Your task to perform on an android device: turn pop-ups on in chrome Image 0: 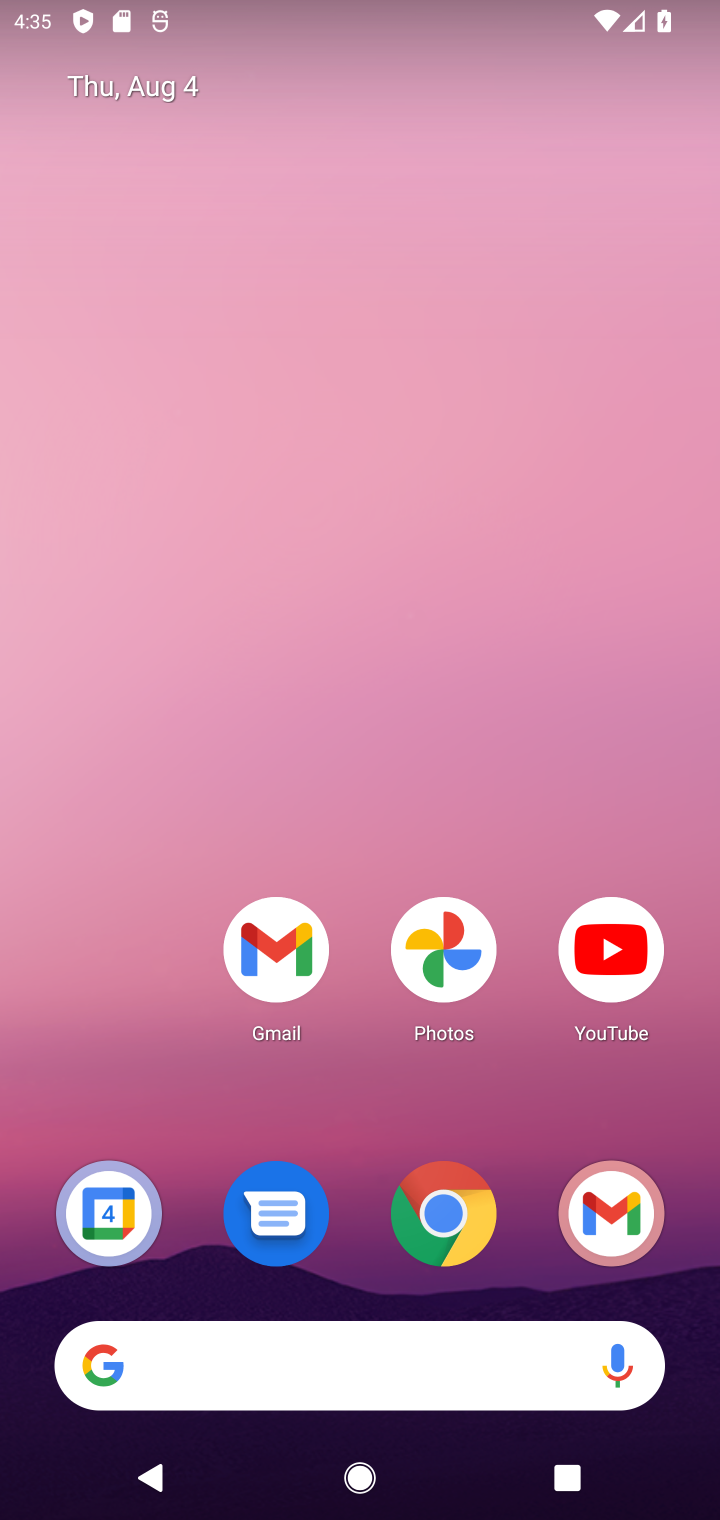
Step 0: press home button
Your task to perform on an android device: turn pop-ups on in chrome Image 1: 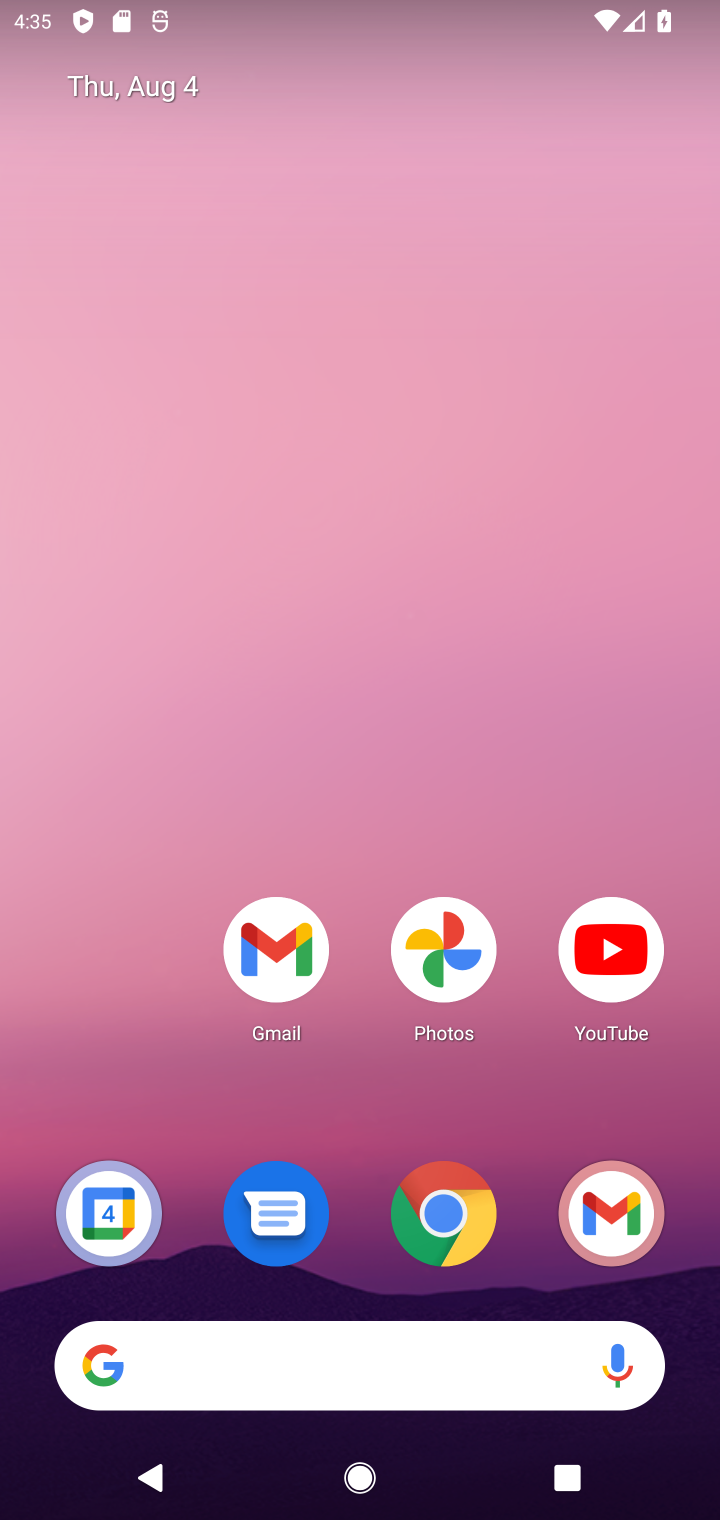
Step 1: drag from (118, 1067) to (147, 311)
Your task to perform on an android device: turn pop-ups on in chrome Image 2: 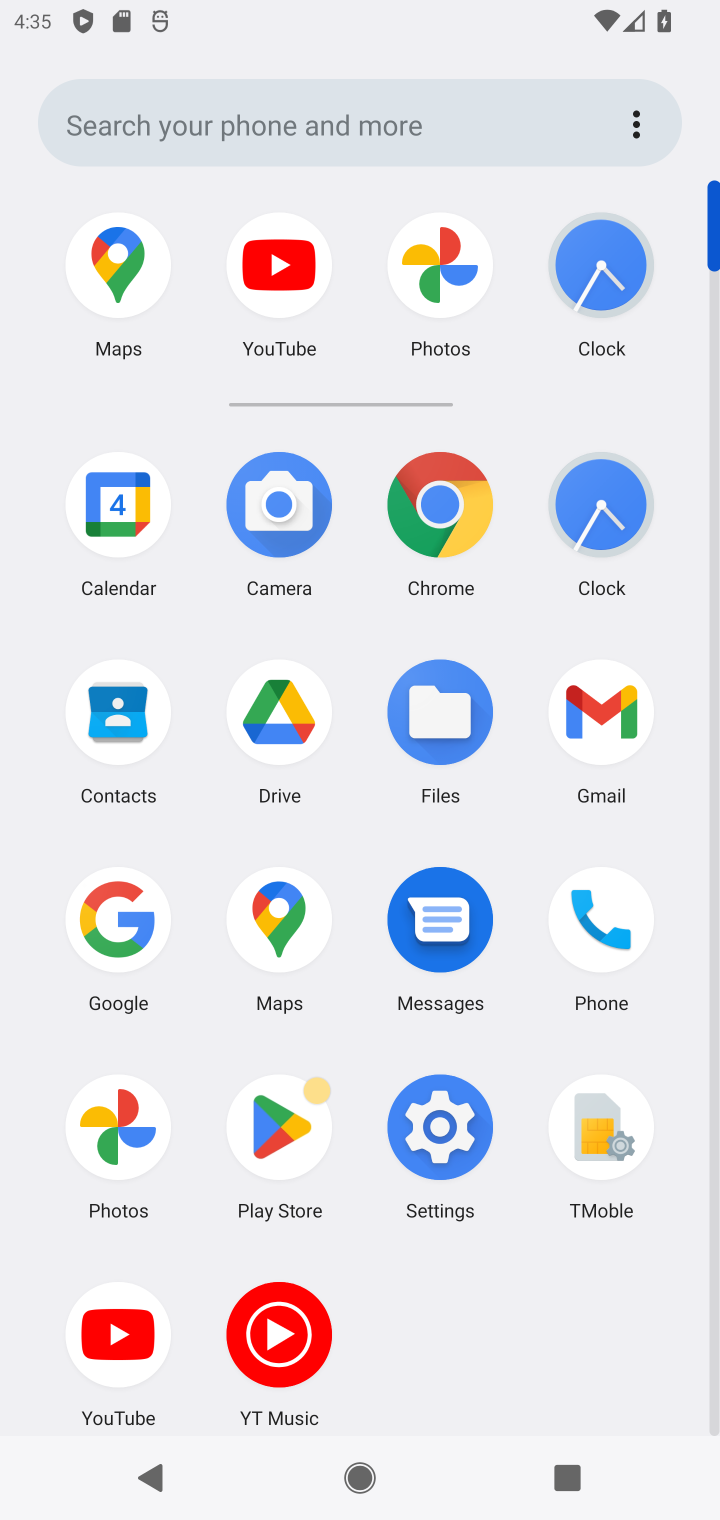
Step 2: click (463, 523)
Your task to perform on an android device: turn pop-ups on in chrome Image 3: 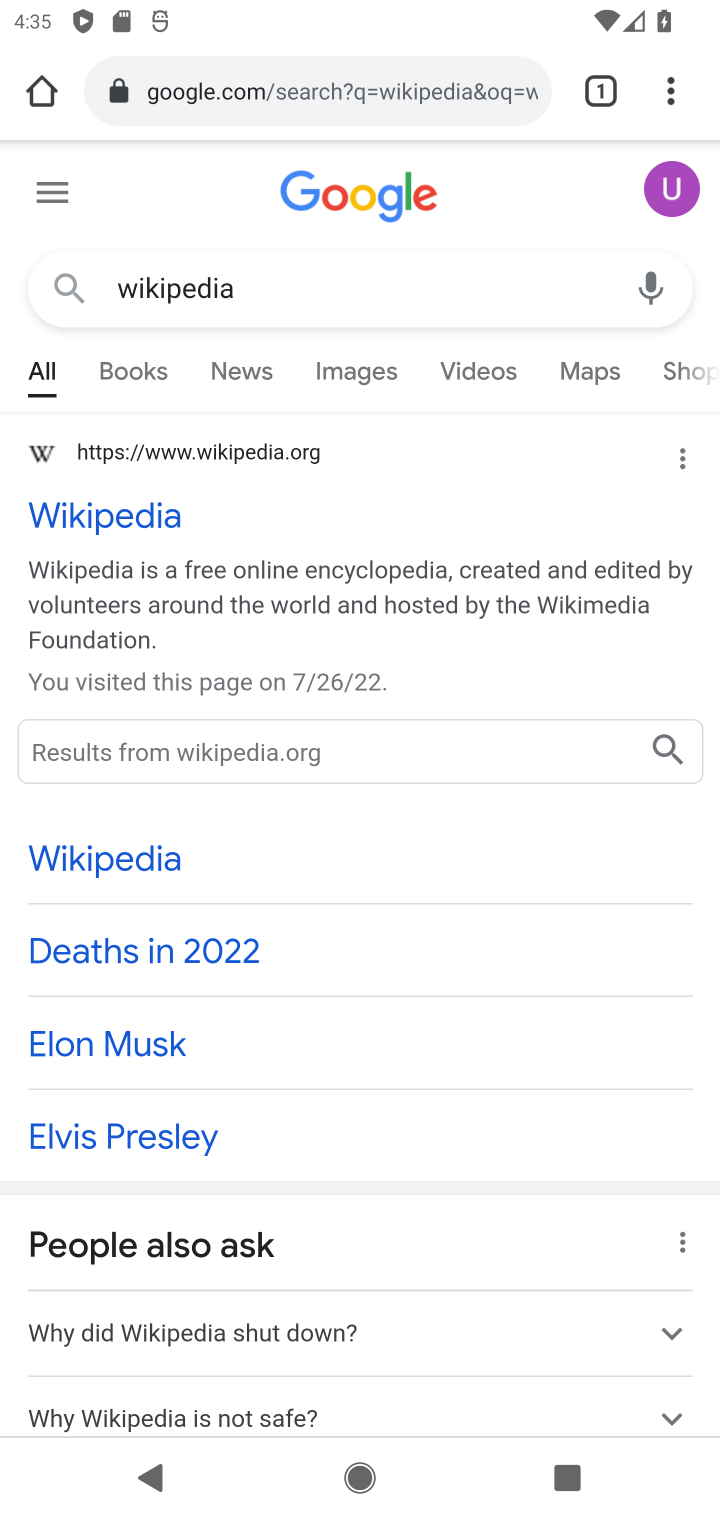
Step 3: click (671, 104)
Your task to perform on an android device: turn pop-ups on in chrome Image 4: 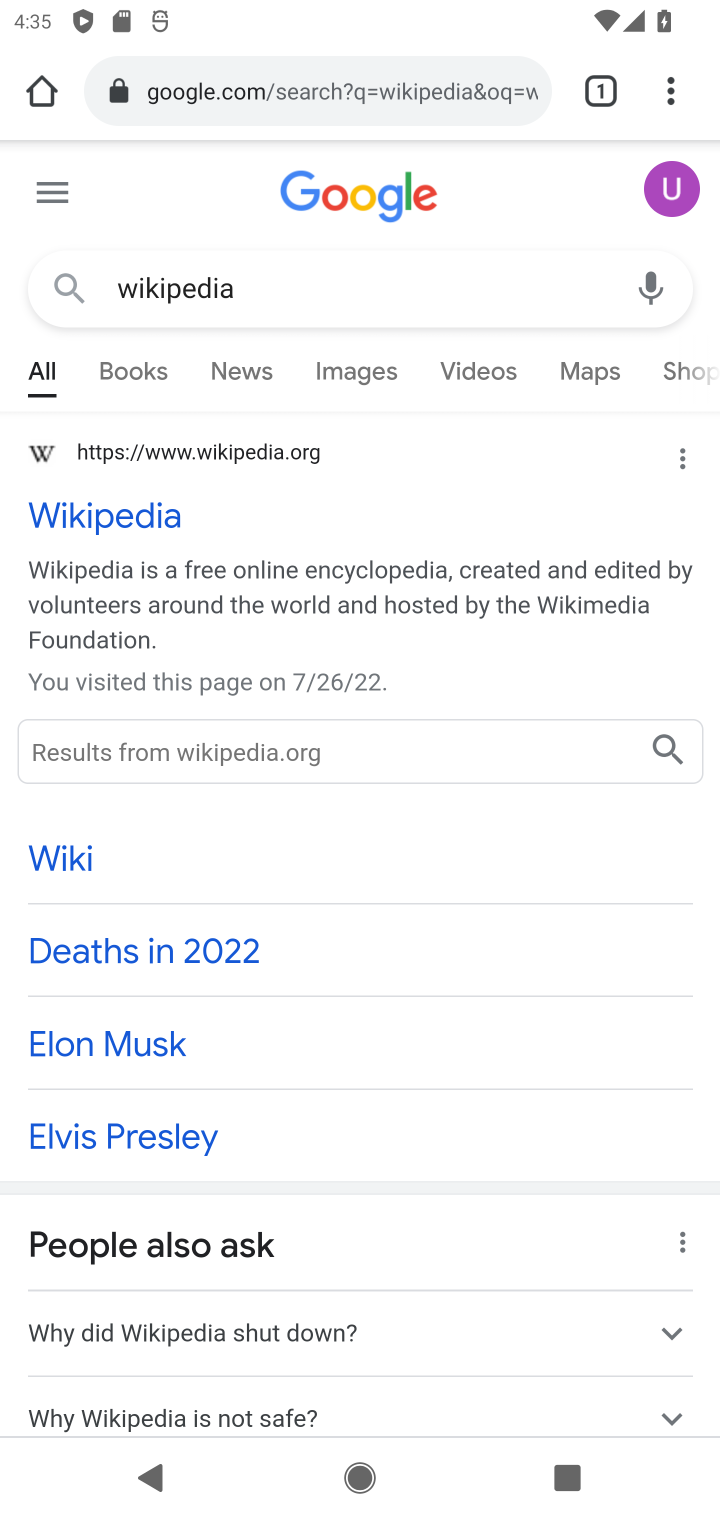
Step 4: click (664, 77)
Your task to perform on an android device: turn pop-ups on in chrome Image 5: 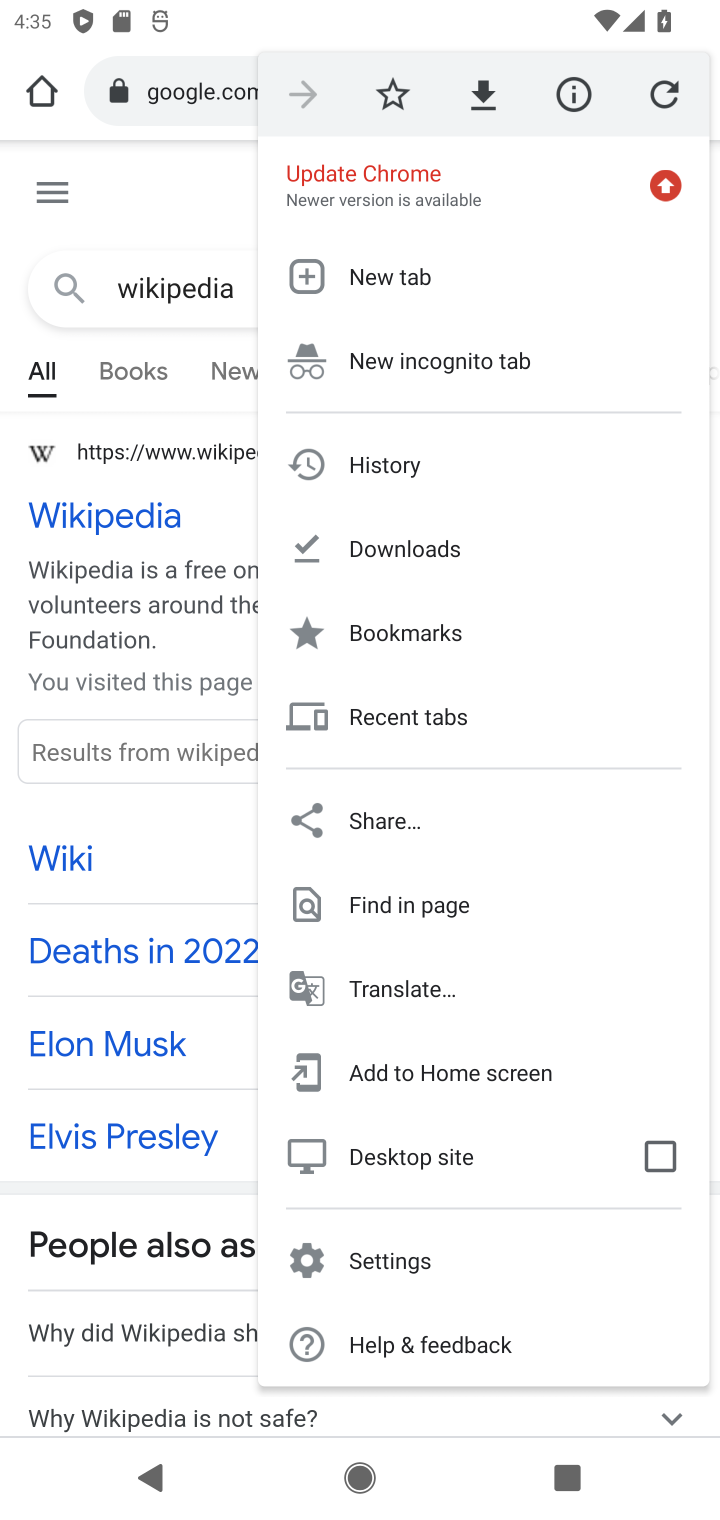
Step 5: click (423, 1263)
Your task to perform on an android device: turn pop-ups on in chrome Image 6: 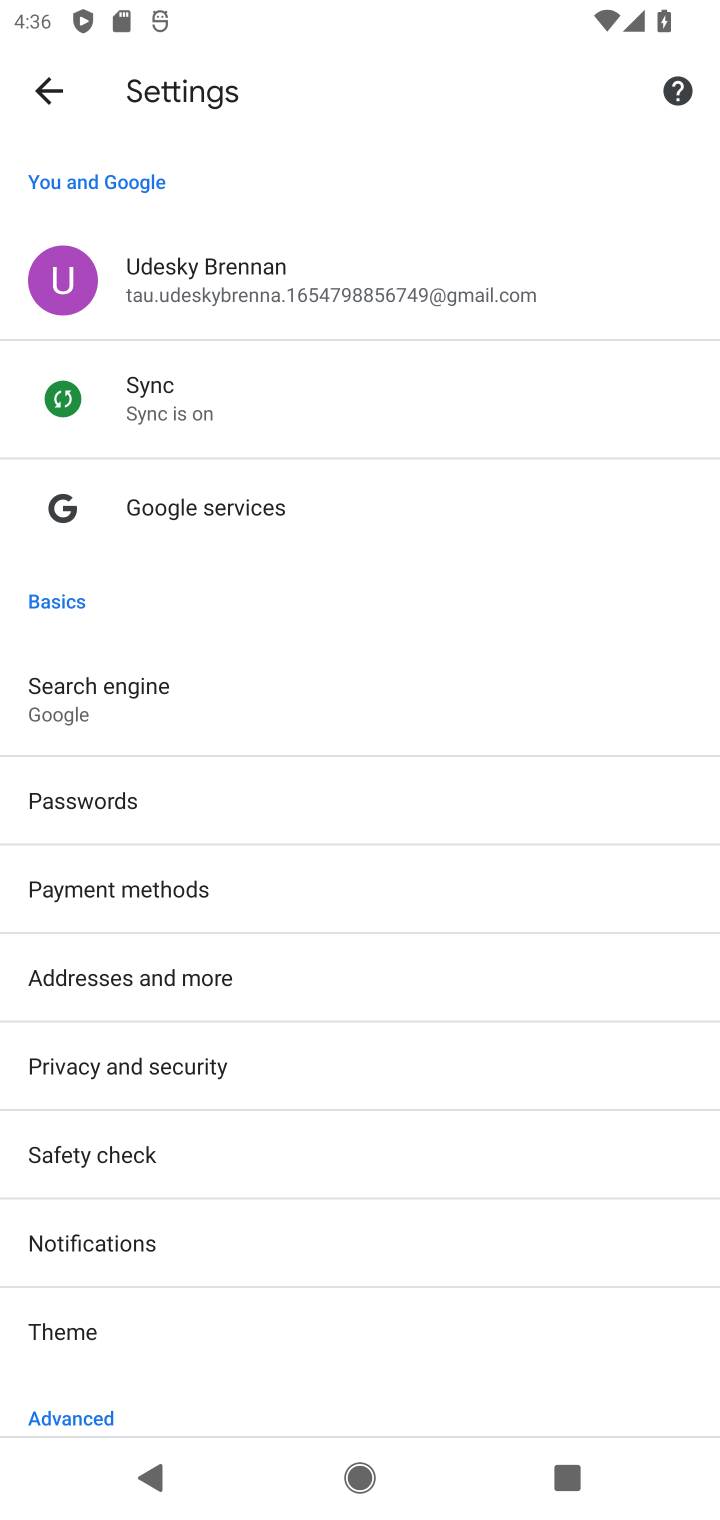
Step 6: drag from (451, 1203) to (455, 898)
Your task to perform on an android device: turn pop-ups on in chrome Image 7: 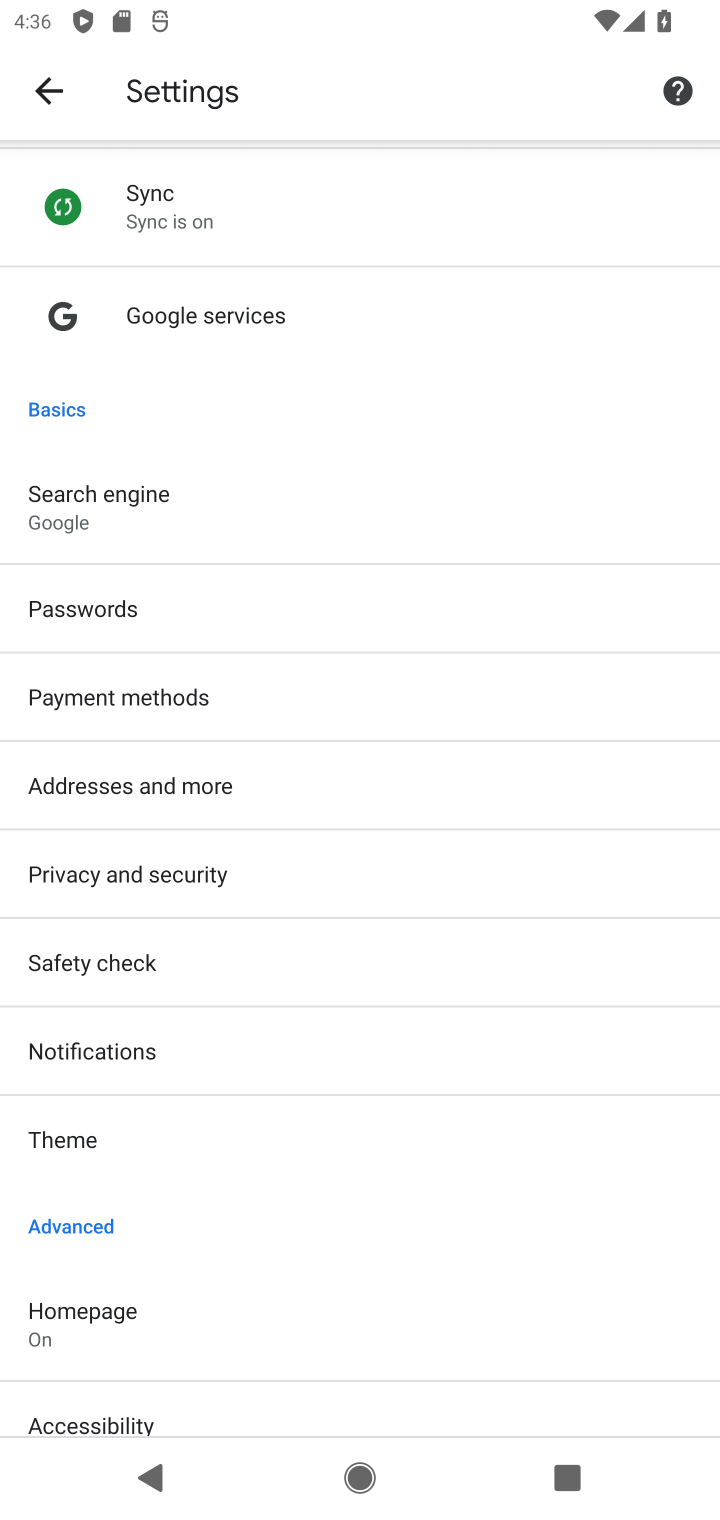
Step 7: drag from (434, 1234) to (425, 805)
Your task to perform on an android device: turn pop-ups on in chrome Image 8: 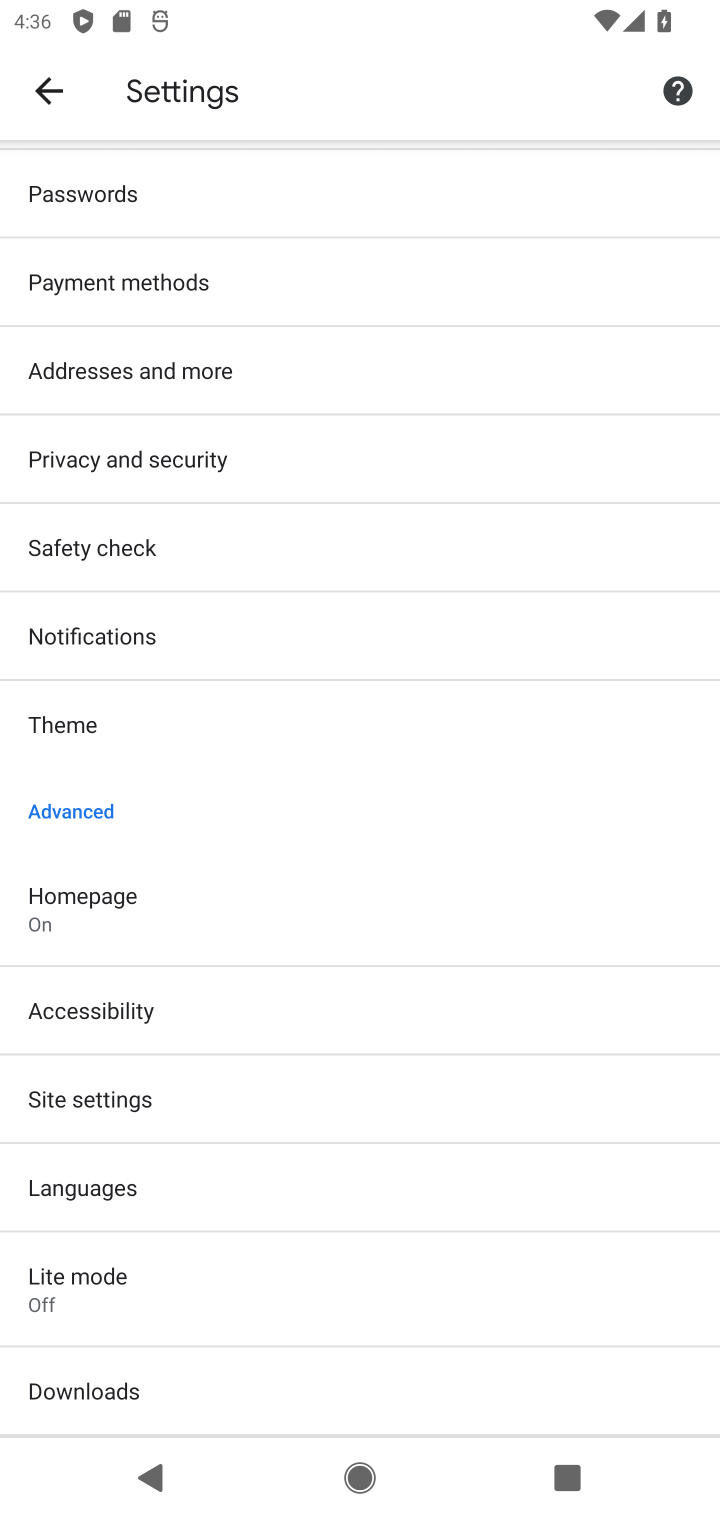
Step 8: drag from (391, 1156) to (409, 719)
Your task to perform on an android device: turn pop-ups on in chrome Image 9: 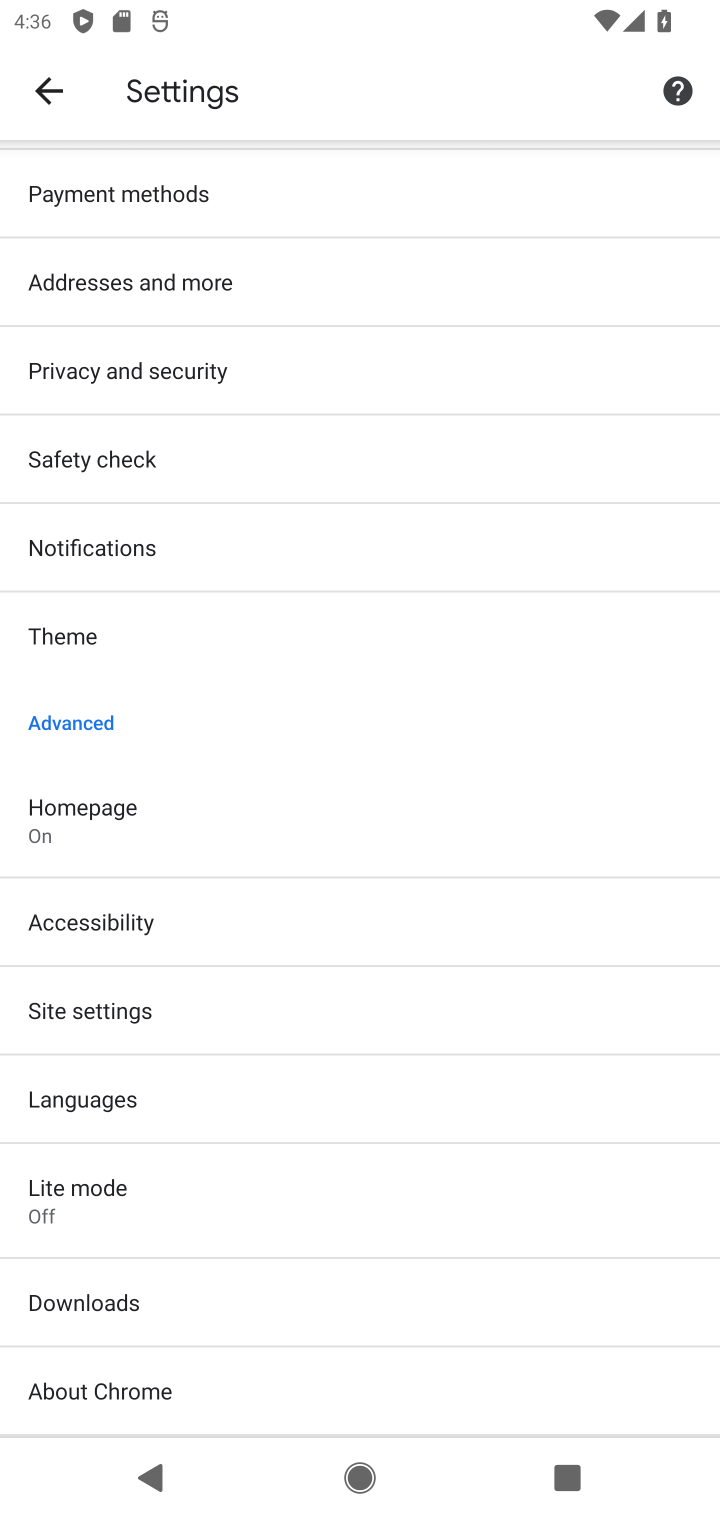
Step 9: click (272, 1010)
Your task to perform on an android device: turn pop-ups on in chrome Image 10: 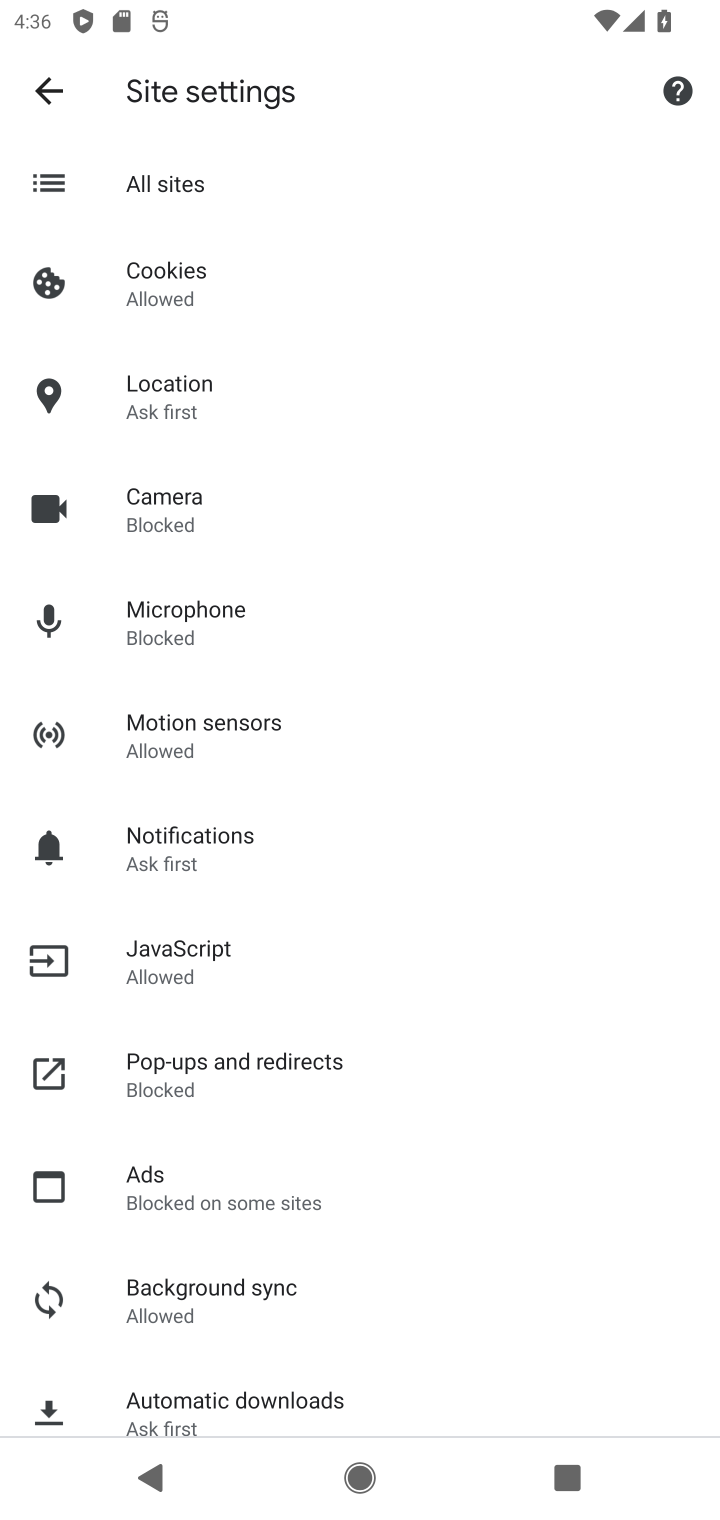
Step 10: click (276, 1070)
Your task to perform on an android device: turn pop-ups on in chrome Image 11: 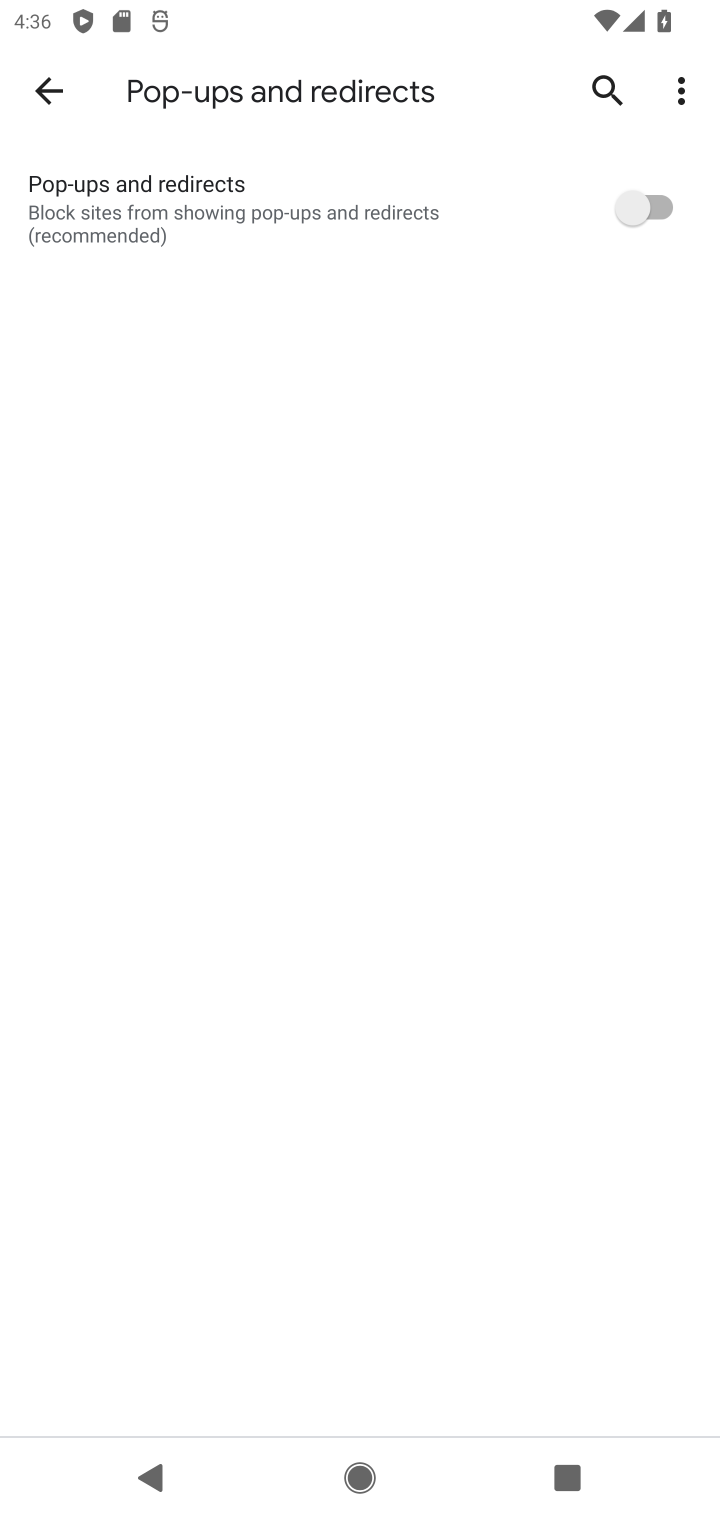
Step 11: click (637, 210)
Your task to perform on an android device: turn pop-ups on in chrome Image 12: 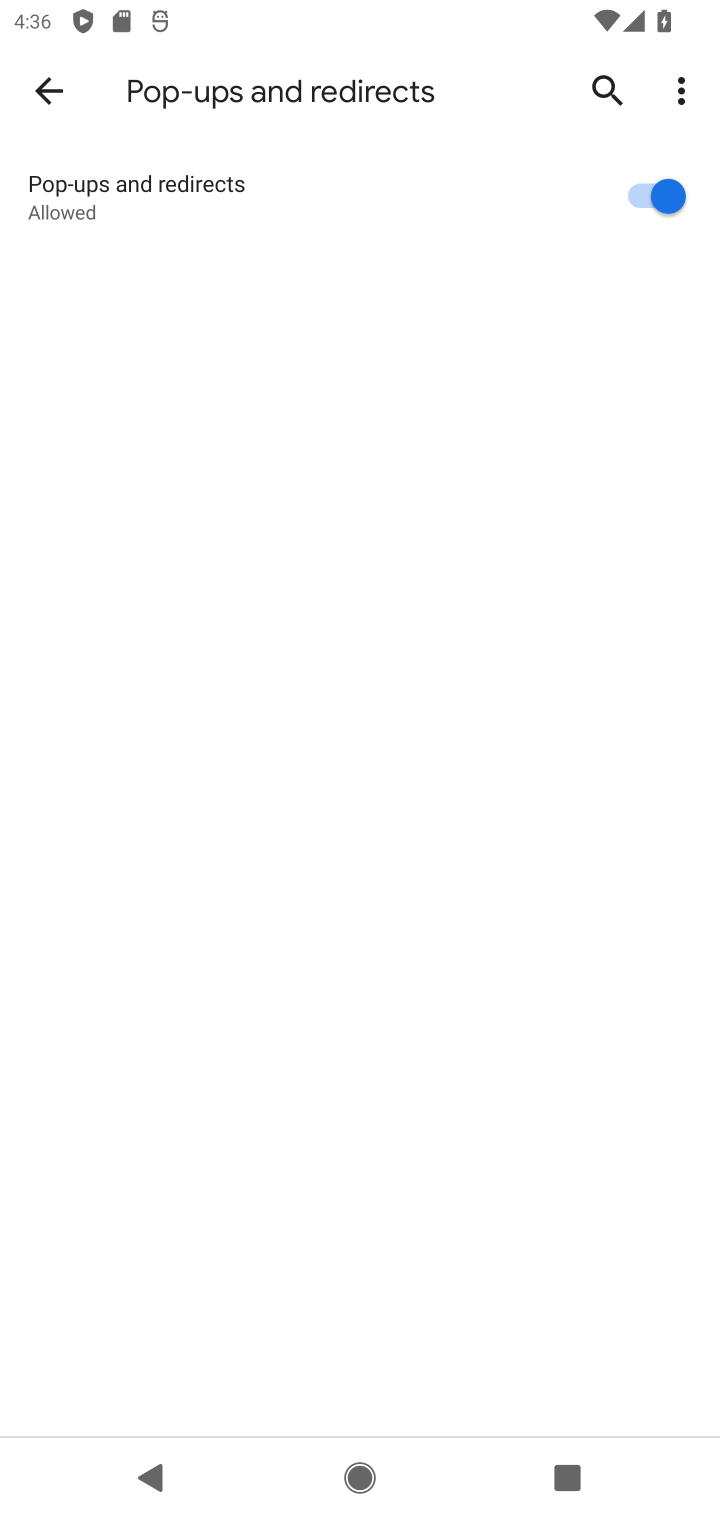
Step 12: task complete